Your task to perform on an android device: all mails in gmail Image 0: 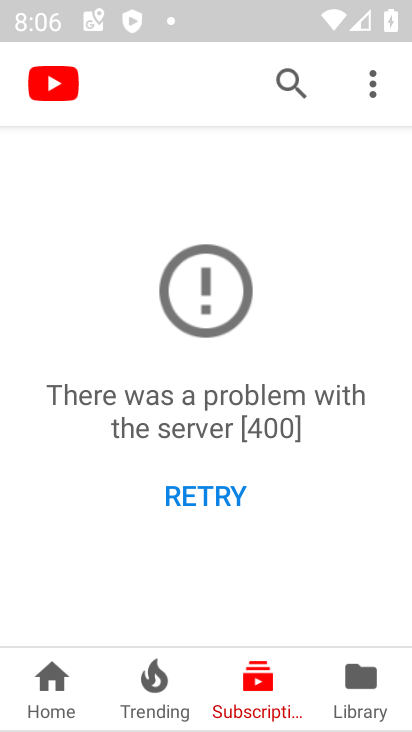
Step 0: press home button
Your task to perform on an android device: all mails in gmail Image 1: 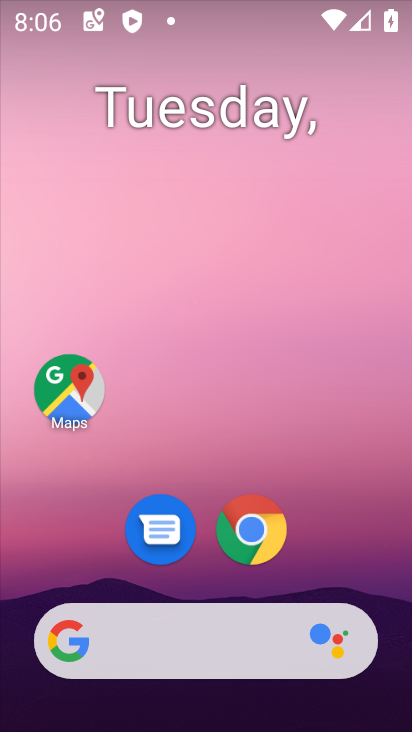
Step 1: drag from (172, 634) to (147, 18)
Your task to perform on an android device: all mails in gmail Image 2: 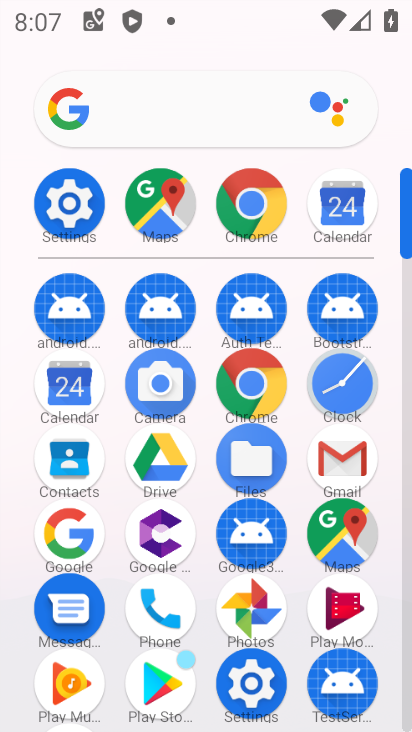
Step 2: click (342, 472)
Your task to perform on an android device: all mails in gmail Image 3: 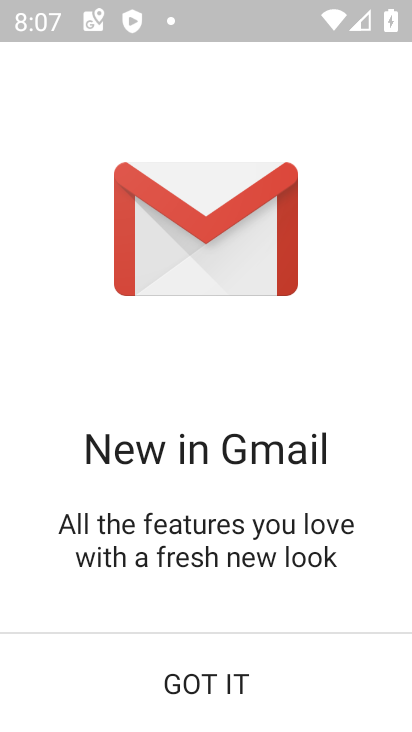
Step 3: click (202, 691)
Your task to perform on an android device: all mails in gmail Image 4: 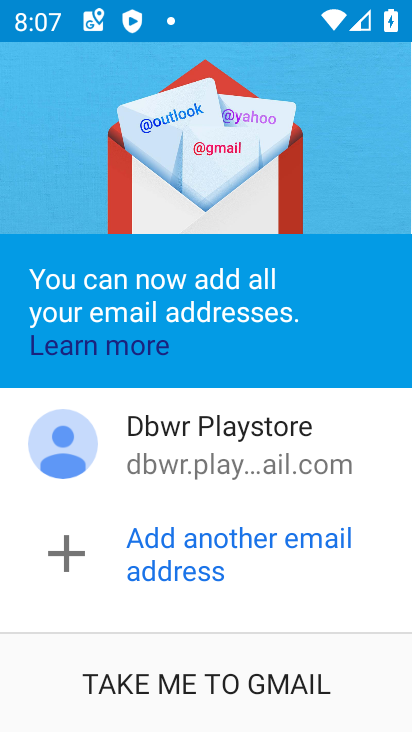
Step 4: click (203, 690)
Your task to perform on an android device: all mails in gmail Image 5: 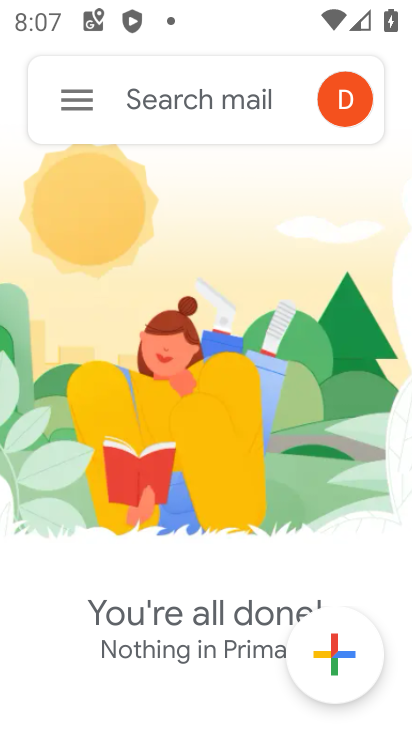
Step 5: click (86, 96)
Your task to perform on an android device: all mails in gmail Image 6: 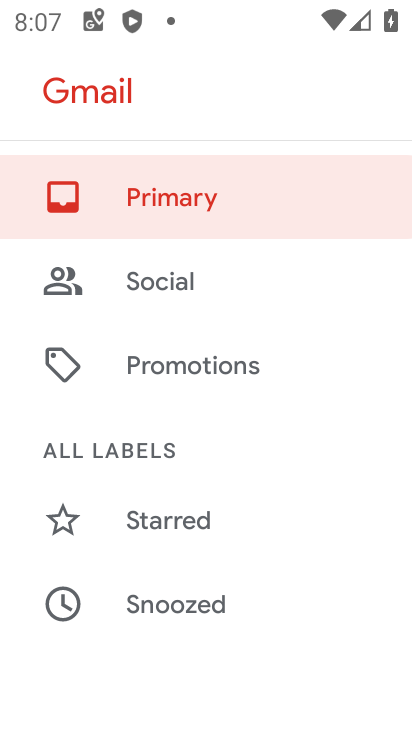
Step 6: drag from (102, 555) to (210, 3)
Your task to perform on an android device: all mails in gmail Image 7: 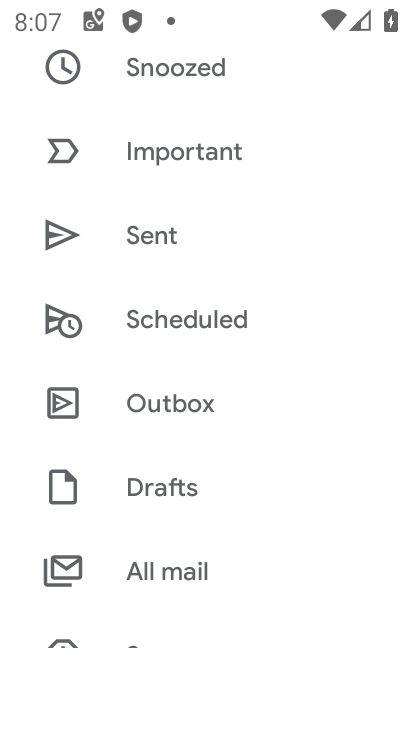
Step 7: click (148, 555)
Your task to perform on an android device: all mails in gmail Image 8: 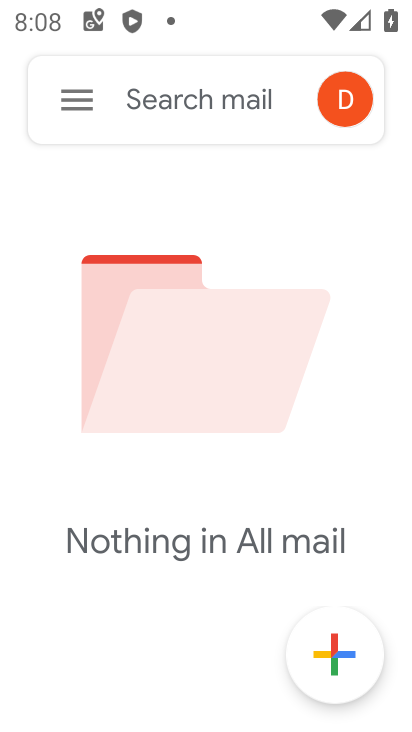
Step 8: task complete